Your task to perform on an android device: open sync settings in chrome Image 0: 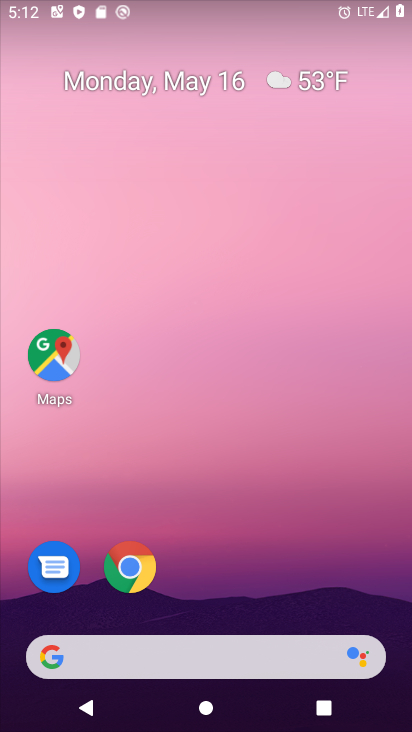
Step 0: drag from (212, 584) to (262, 0)
Your task to perform on an android device: open sync settings in chrome Image 1: 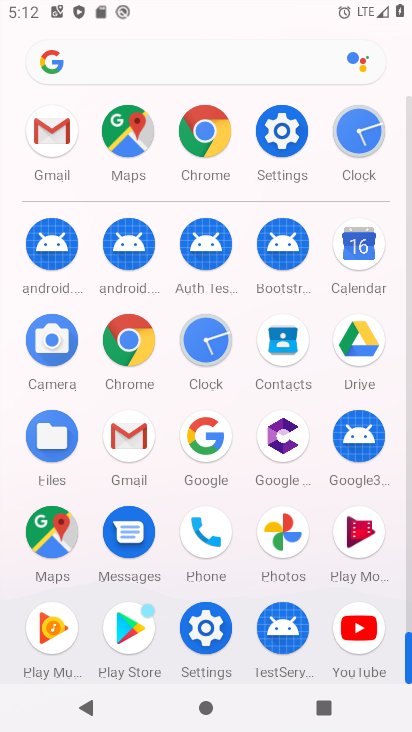
Step 1: click (109, 335)
Your task to perform on an android device: open sync settings in chrome Image 2: 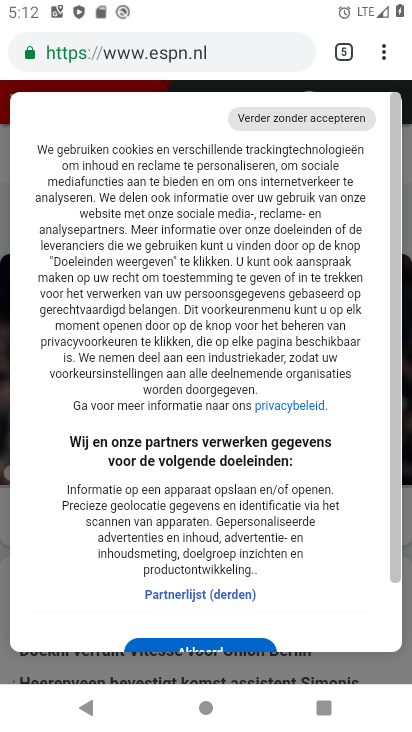
Step 2: click (381, 57)
Your task to perform on an android device: open sync settings in chrome Image 3: 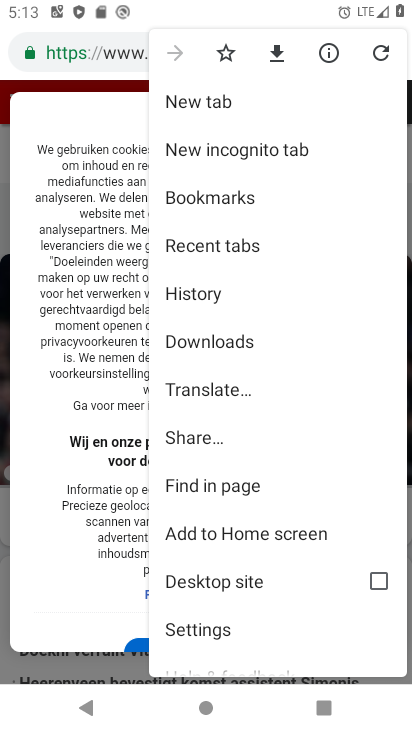
Step 3: click (220, 629)
Your task to perform on an android device: open sync settings in chrome Image 4: 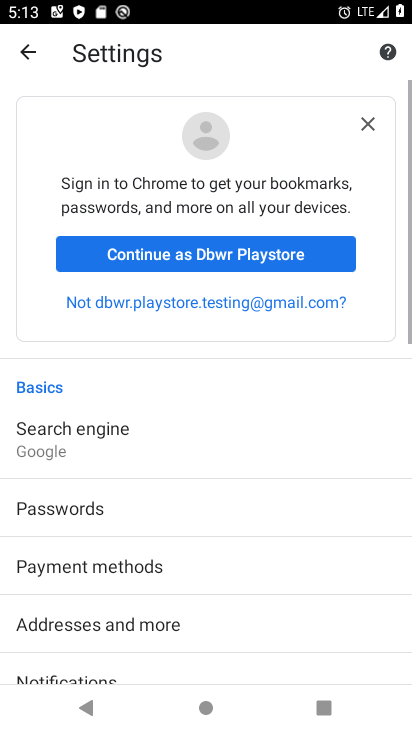
Step 4: drag from (218, 613) to (205, 196)
Your task to perform on an android device: open sync settings in chrome Image 5: 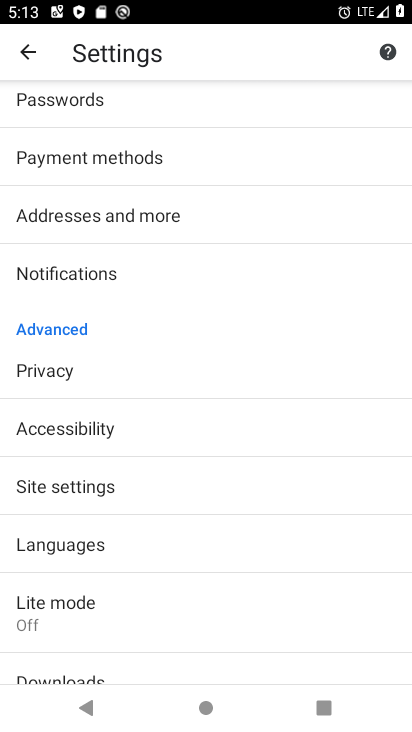
Step 5: drag from (149, 665) to (152, 347)
Your task to perform on an android device: open sync settings in chrome Image 6: 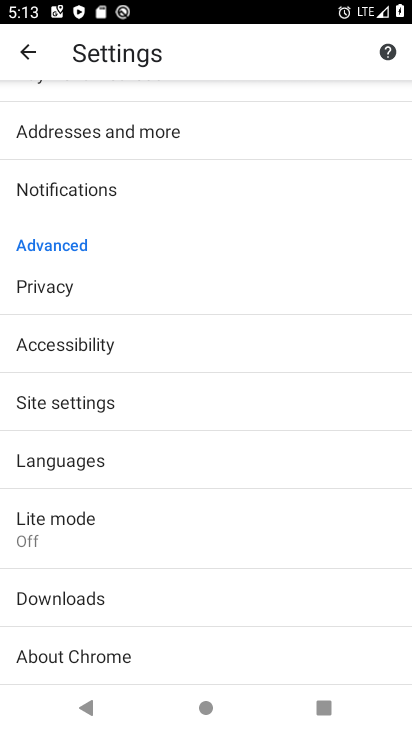
Step 6: click (101, 403)
Your task to perform on an android device: open sync settings in chrome Image 7: 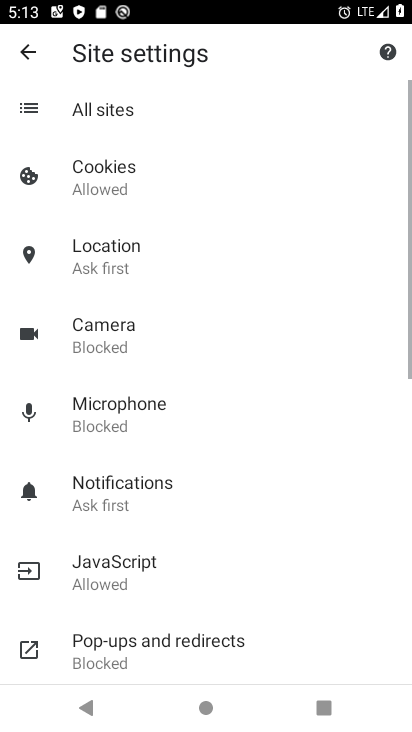
Step 7: drag from (147, 594) to (101, 188)
Your task to perform on an android device: open sync settings in chrome Image 8: 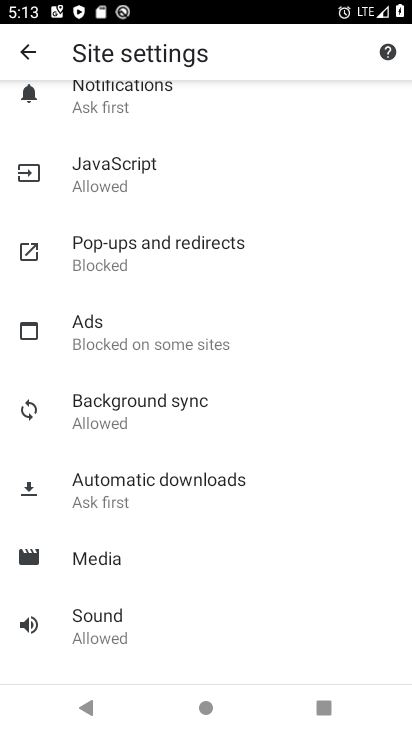
Step 8: click (193, 418)
Your task to perform on an android device: open sync settings in chrome Image 9: 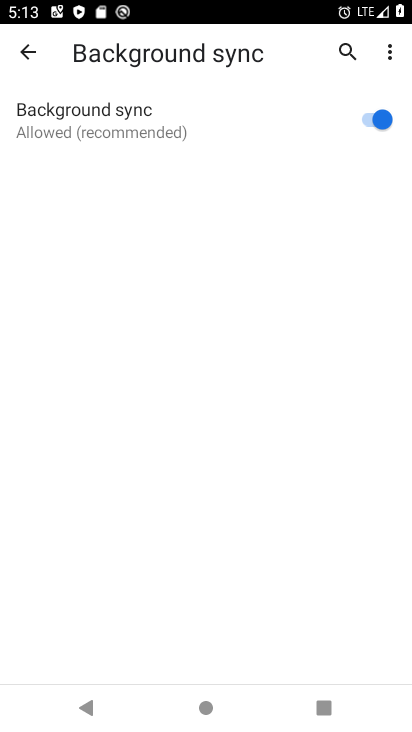
Step 9: task complete